Your task to perform on an android device: turn off sleep mode Image 0: 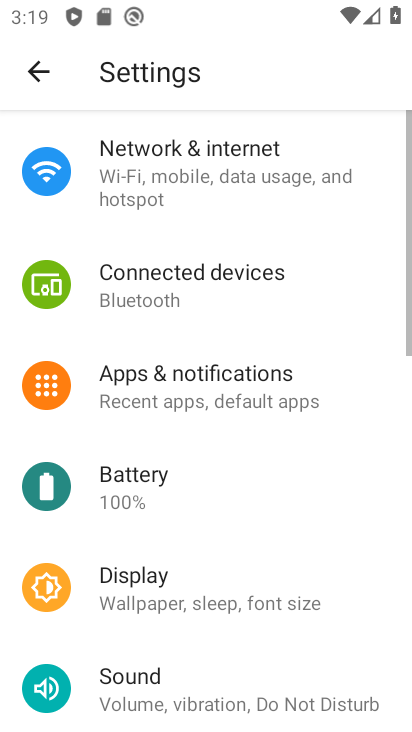
Step 0: press home button
Your task to perform on an android device: turn off sleep mode Image 1: 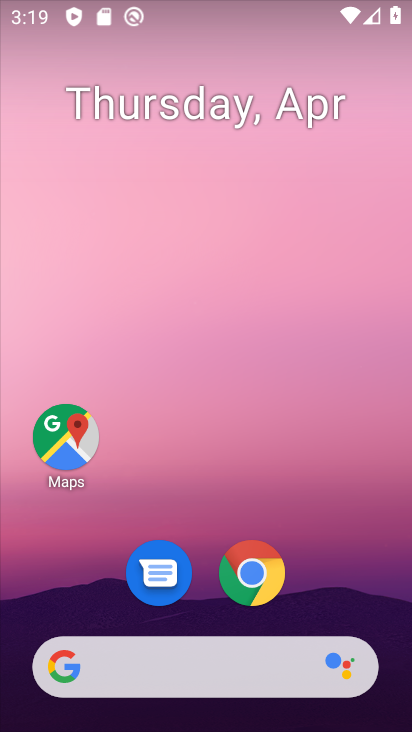
Step 1: drag from (339, 563) to (266, 33)
Your task to perform on an android device: turn off sleep mode Image 2: 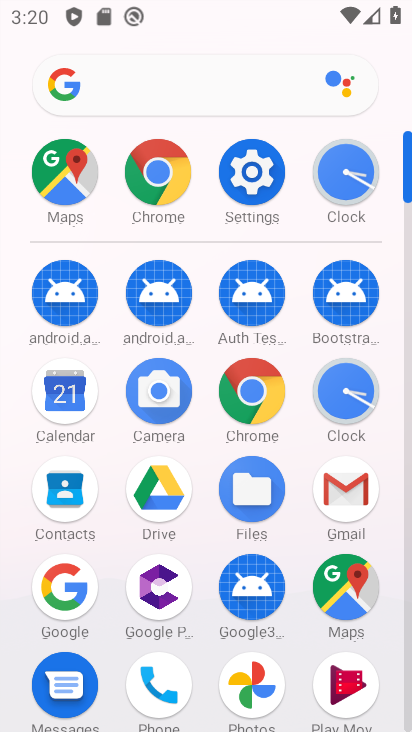
Step 2: click (265, 188)
Your task to perform on an android device: turn off sleep mode Image 3: 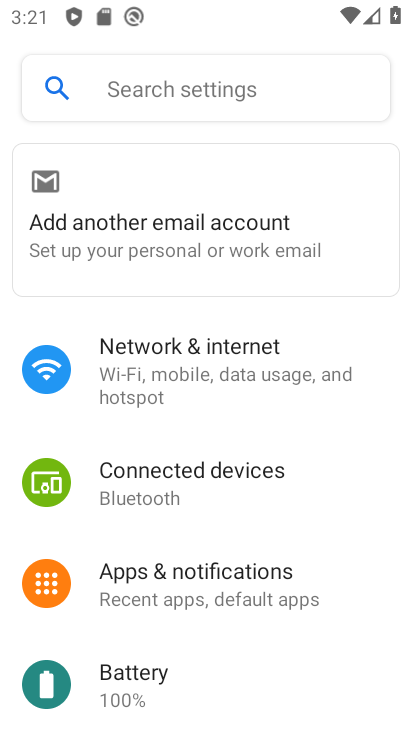
Step 3: task complete